Your task to perform on an android device: Open notification settings Image 0: 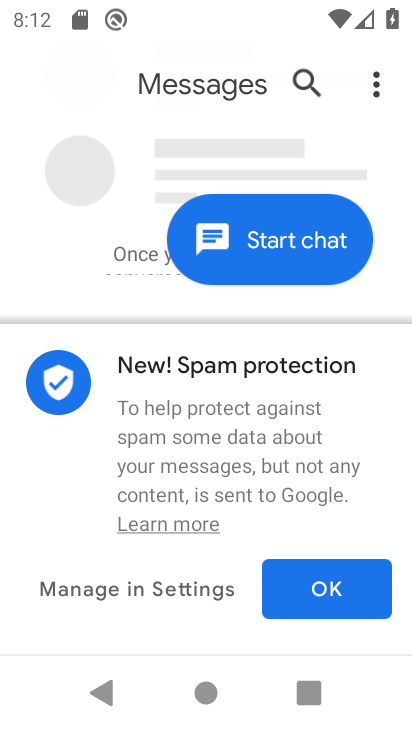
Step 0: press home button
Your task to perform on an android device: Open notification settings Image 1: 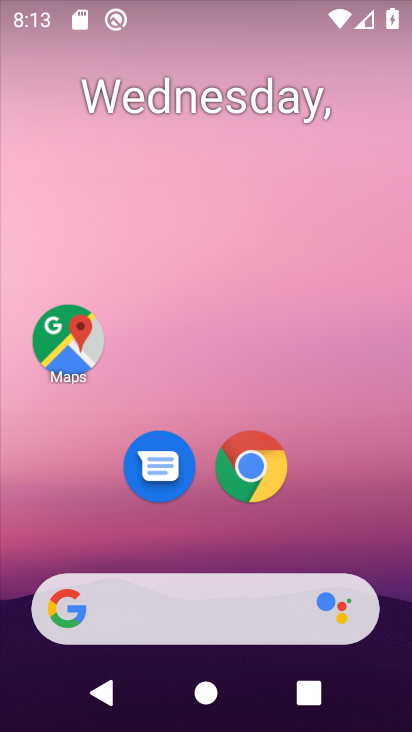
Step 1: drag from (241, 724) to (246, 214)
Your task to perform on an android device: Open notification settings Image 2: 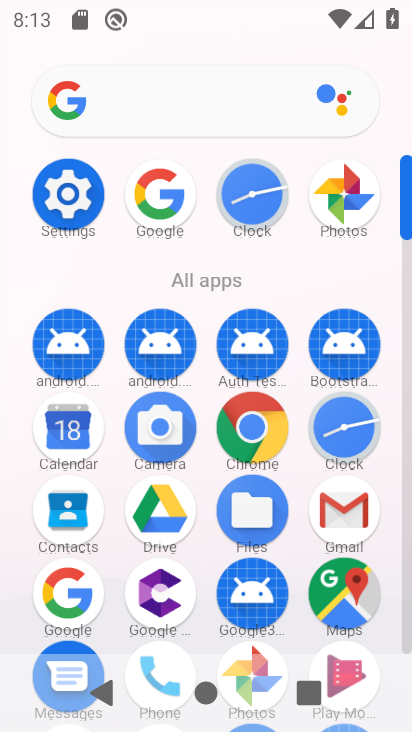
Step 2: click (70, 187)
Your task to perform on an android device: Open notification settings Image 3: 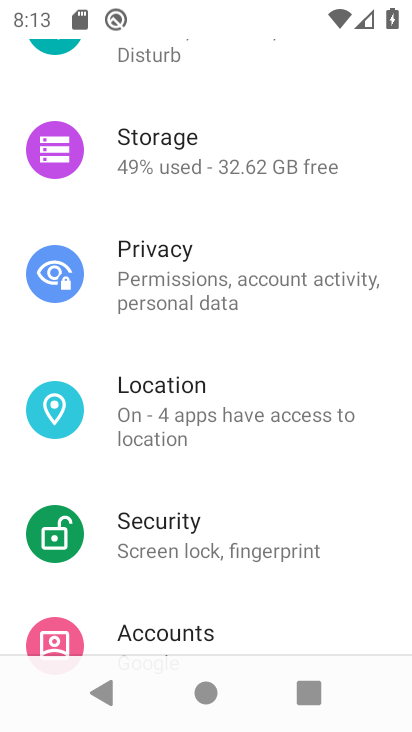
Step 3: drag from (202, 176) to (183, 528)
Your task to perform on an android device: Open notification settings Image 4: 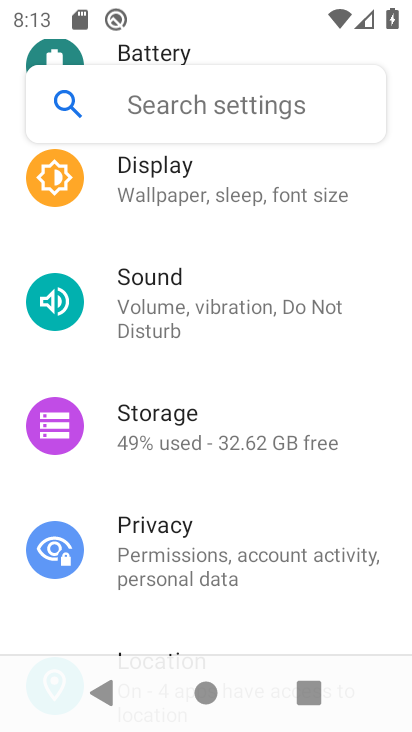
Step 4: drag from (190, 242) to (181, 607)
Your task to perform on an android device: Open notification settings Image 5: 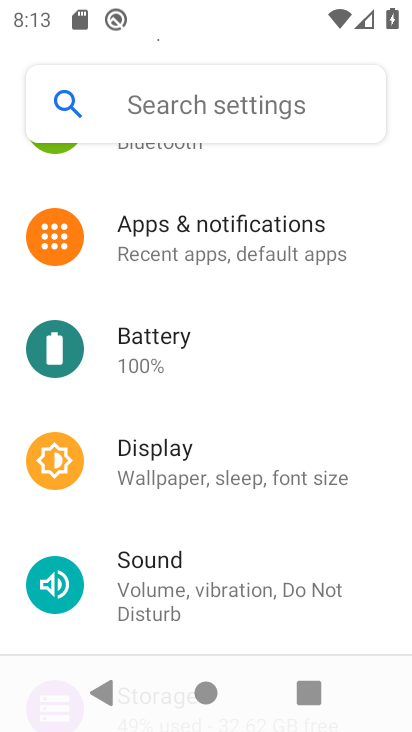
Step 5: click (175, 252)
Your task to perform on an android device: Open notification settings Image 6: 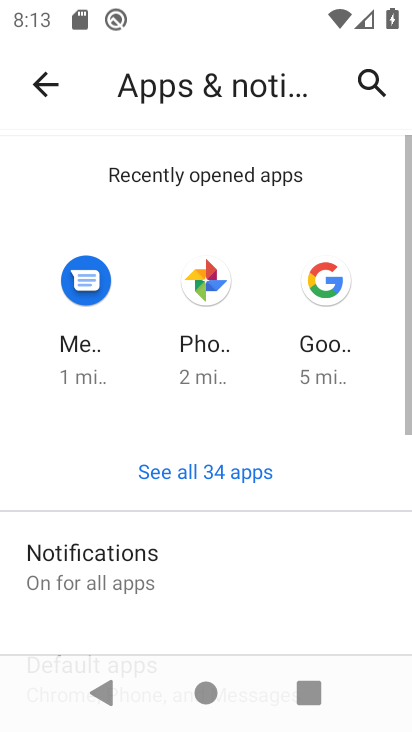
Step 6: click (109, 573)
Your task to perform on an android device: Open notification settings Image 7: 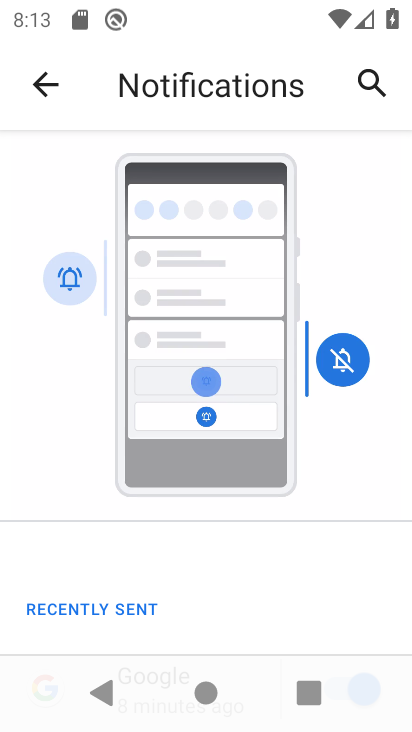
Step 7: task complete